Your task to perform on an android device: Open notification settings Image 0: 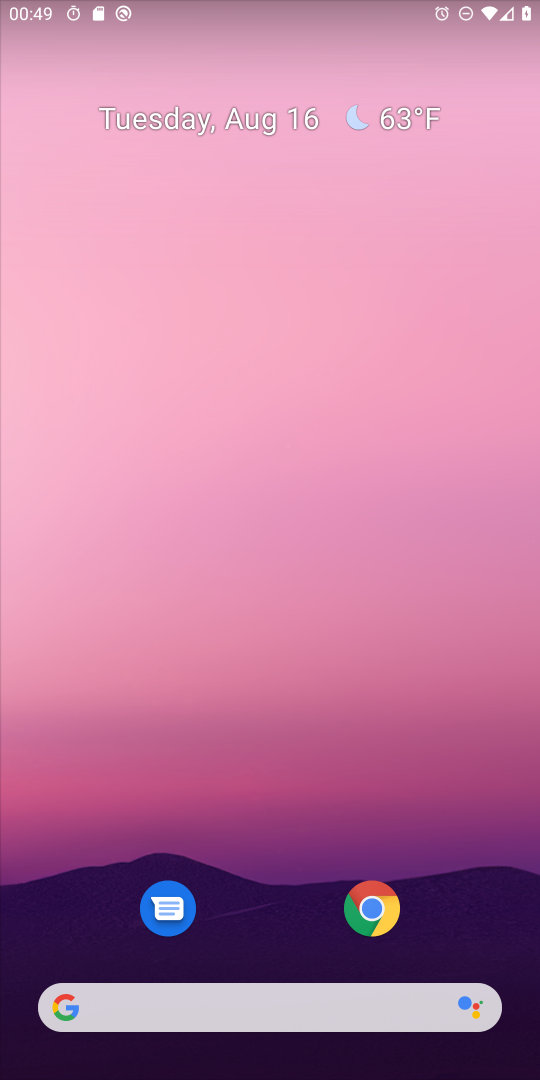
Step 0: drag from (253, 886) to (189, 118)
Your task to perform on an android device: Open notification settings Image 1: 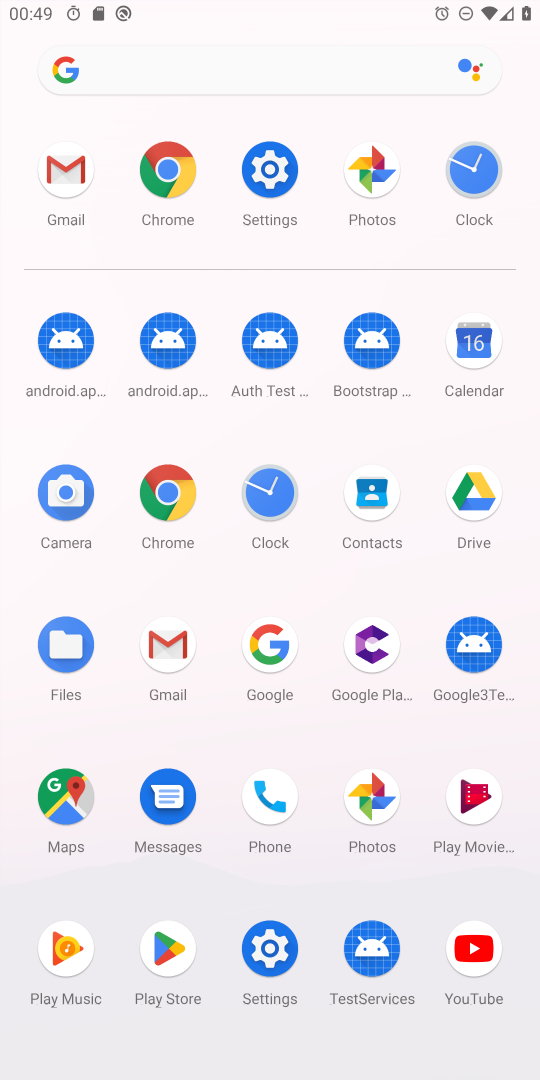
Step 1: click (260, 186)
Your task to perform on an android device: Open notification settings Image 2: 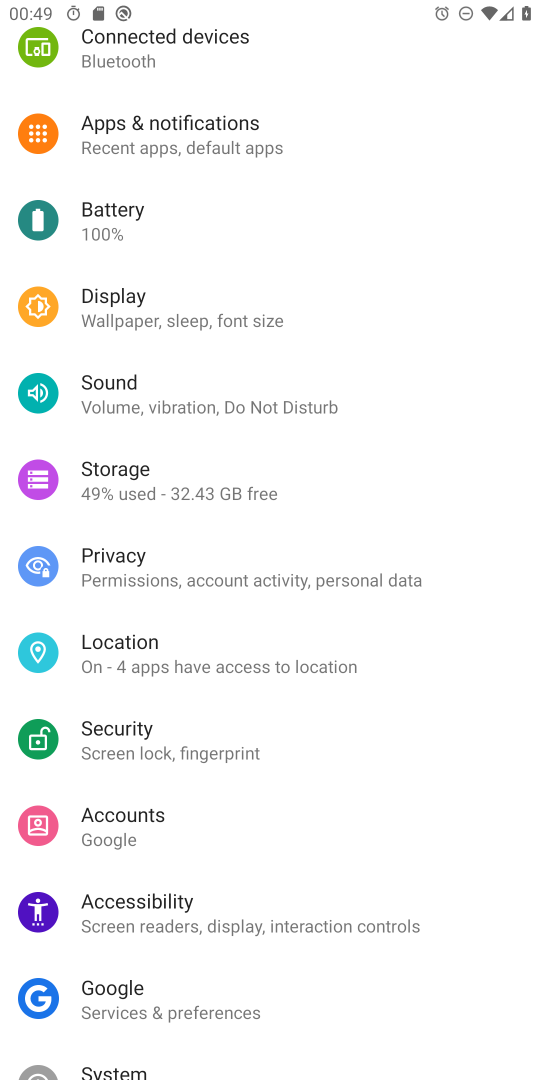
Step 2: click (215, 156)
Your task to perform on an android device: Open notification settings Image 3: 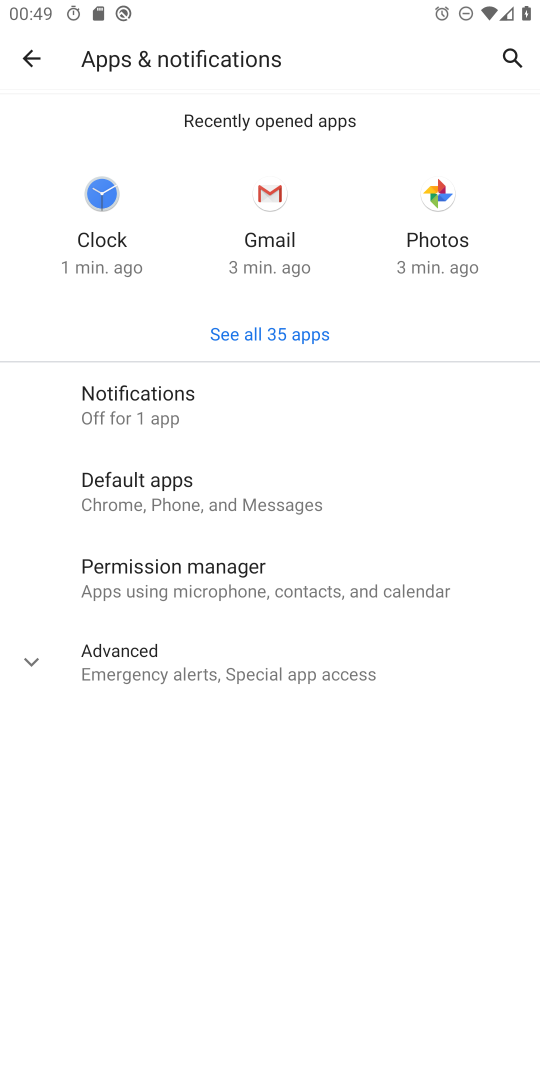
Step 3: task complete